Your task to perform on an android device: Open the calendar and show me this week's events? Image 0: 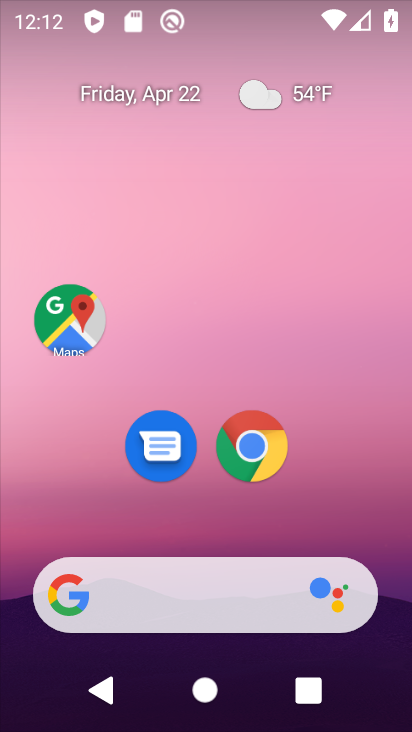
Step 0: drag from (395, 605) to (361, 333)
Your task to perform on an android device: Open the calendar and show me this week's events? Image 1: 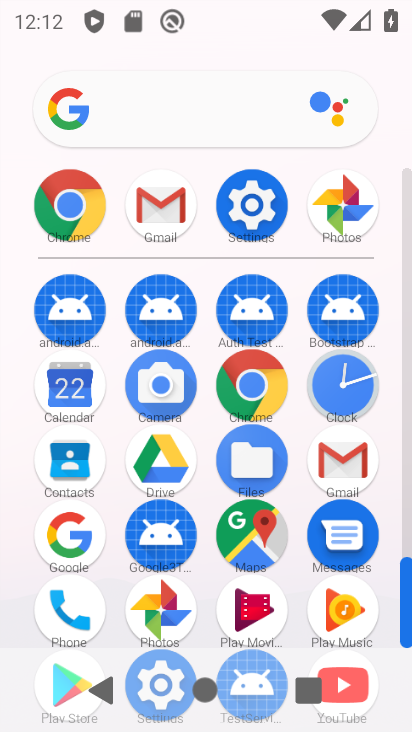
Step 1: click (89, 380)
Your task to perform on an android device: Open the calendar and show me this week's events? Image 2: 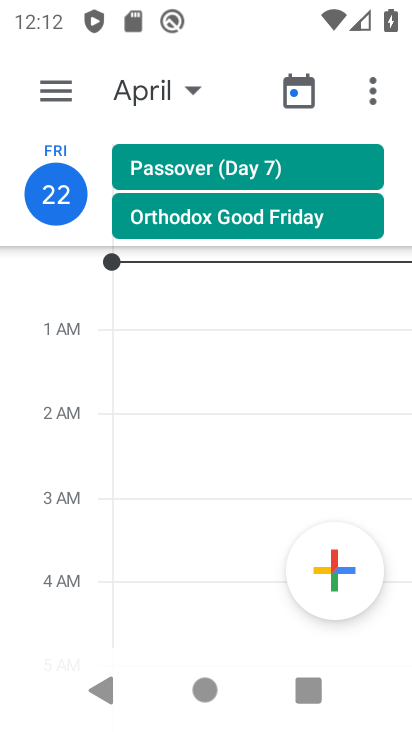
Step 2: click (65, 89)
Your task to perform on an android device: Open the calendar and show me this week's events? Image 3: 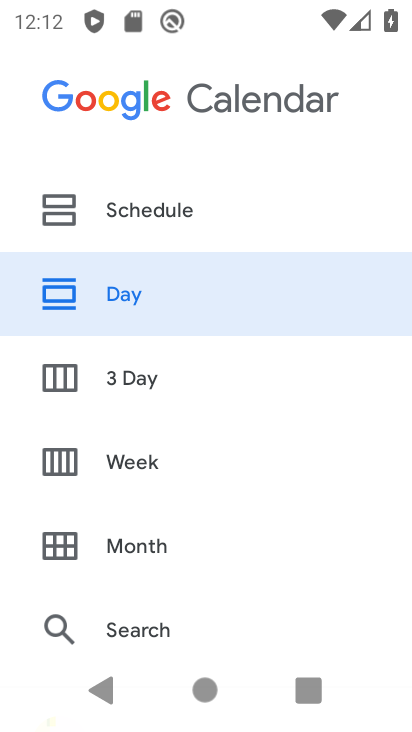
Step 3: click (219, 462)
Your task to perform on an android device: Open the calendar and show me this week's events? Image 4: 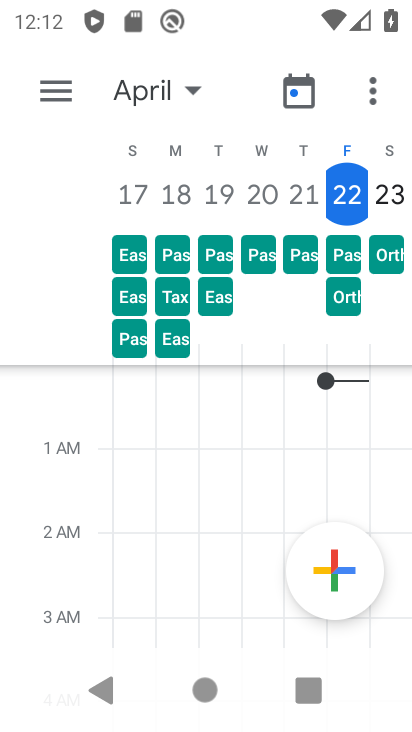
Step 4: click (186, 74)
Your task to perform on an android device: Open the calendar and show me this week's events? Image 5: 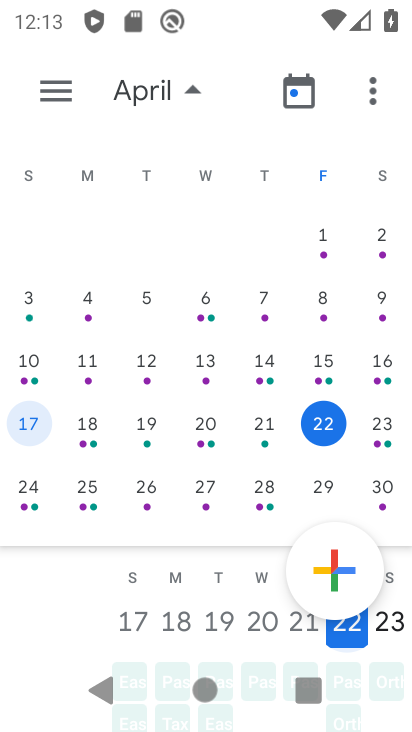
Step 5: click (374, 423)
Your task to perform on an android device: Open the calendar and show me this week's events? Image 6: 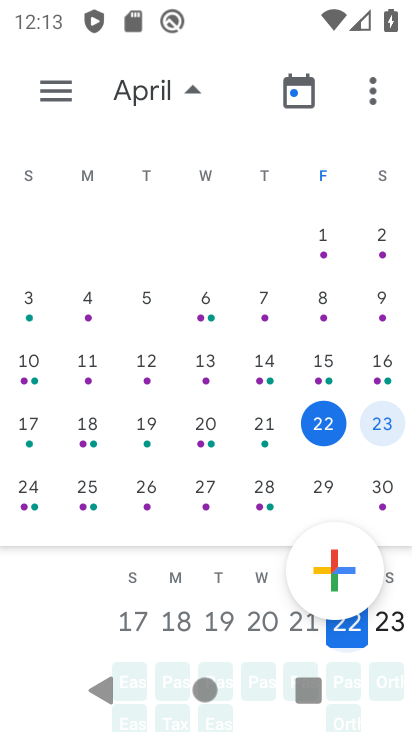
Step 6: click (190, 100)
Your task to perform on an android device: Open the calendar and show me this week's events? Image 7: 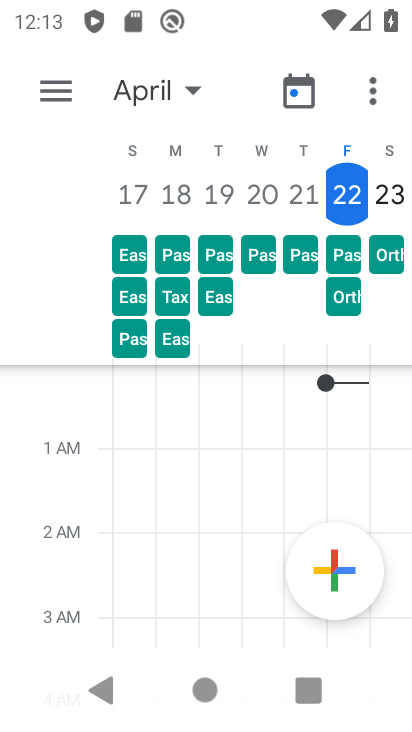
Step 7: task complete